Your task to perform on an android device: Search for vegetarian restaurants on Maps Image 0: 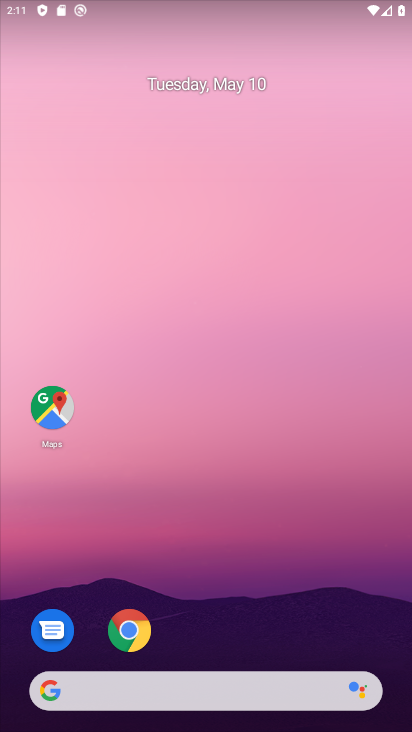
Step 0: drag from (272, 689) to (47, 125)
Your task to perform on an android device: Search for vegetarian restaurants on Maps Image 1: 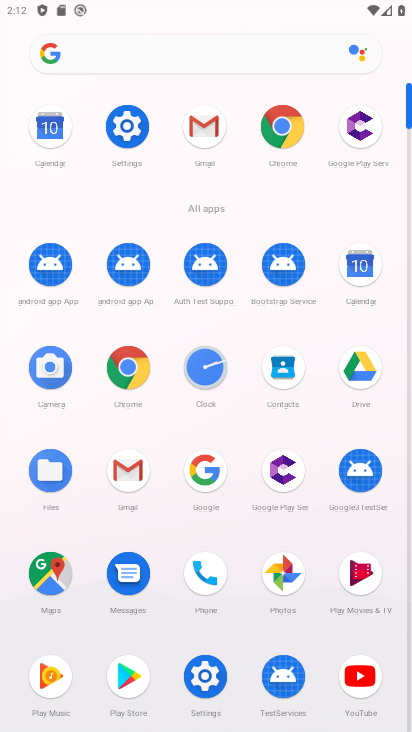
Step 1: click (50, 572)
Your task to perform on an android device: Search for vegetarian restaurants on Maps Image 2: 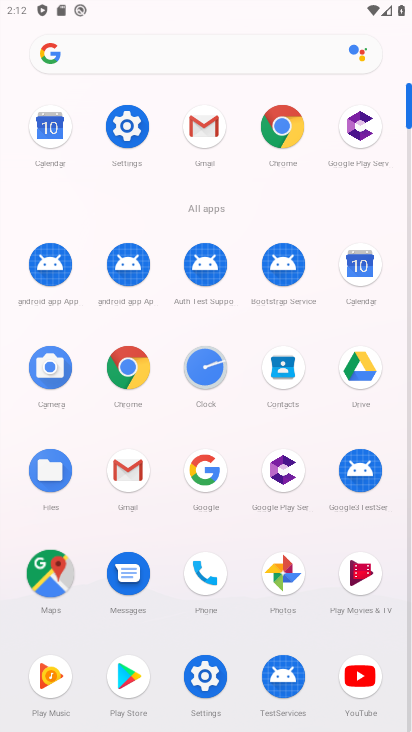
Step 2: click (50, 572)
Your task to perform on an android device: Search for vegetarian restaurants on Maps Image 3: 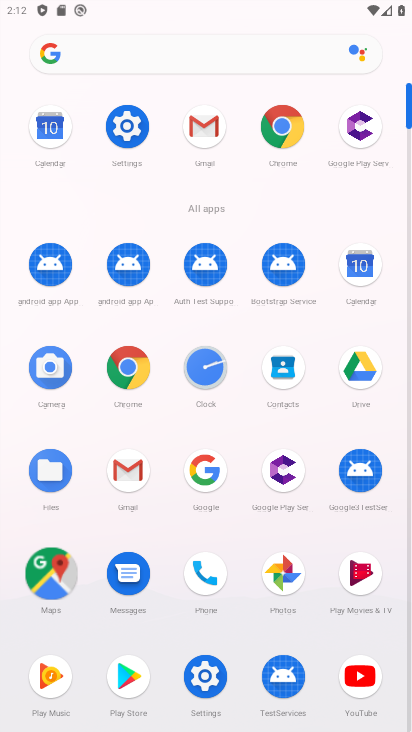
Step 3: click (50, 572)
Your task to perform on an android device: Search for vegetarian restaurants on Maps Image 4: 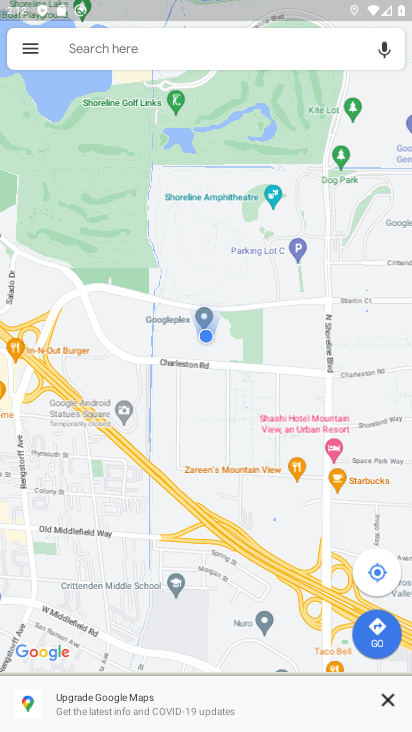
Step 4: click (75, 51)
Your task to perform on an android device: Search for vegetarian restaurants on Maps Image 5: 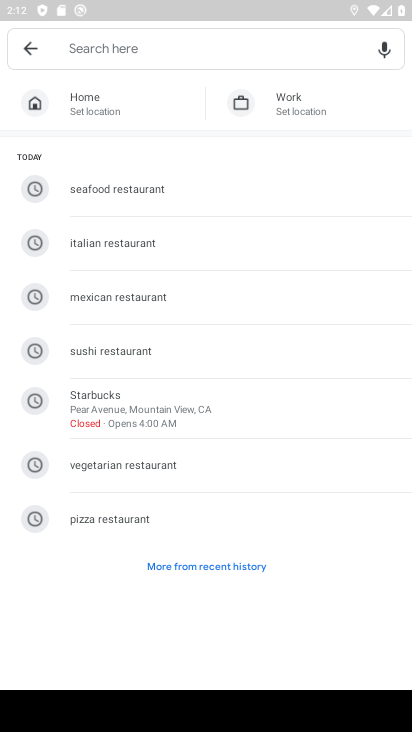
Step 5: type "vegetarian restaurants"
Your task to perform on an android device: Search for vegetarian restaurants on Maps Image 6: 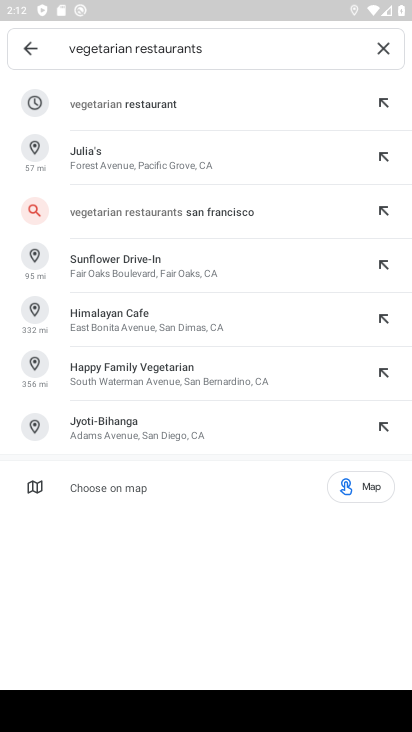
Step 6: click (154, 113)
Your task to perform on an android device: Search for vegetarian restaurants on Maps Image 7: 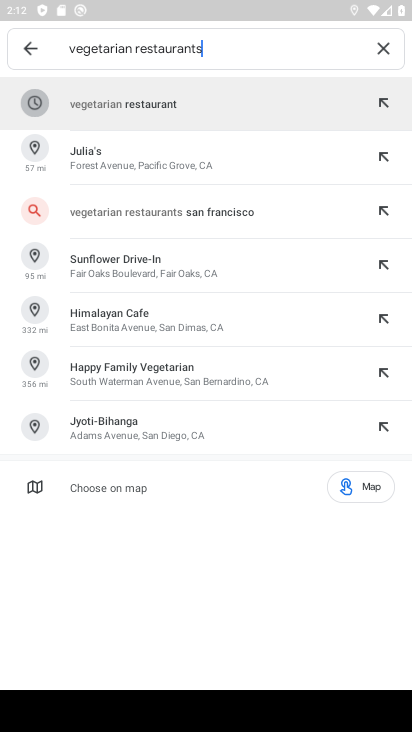
Step 7: click (153, 112)
Your task to perform on an android device: Search for vegetarian restaurants on Maps Image 8: 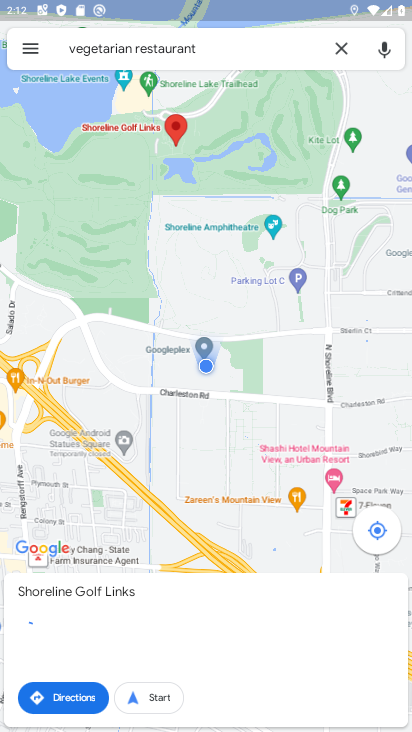
Step 8: task complete